Your task to perform on an android device: Go to CNN.com Image 0: 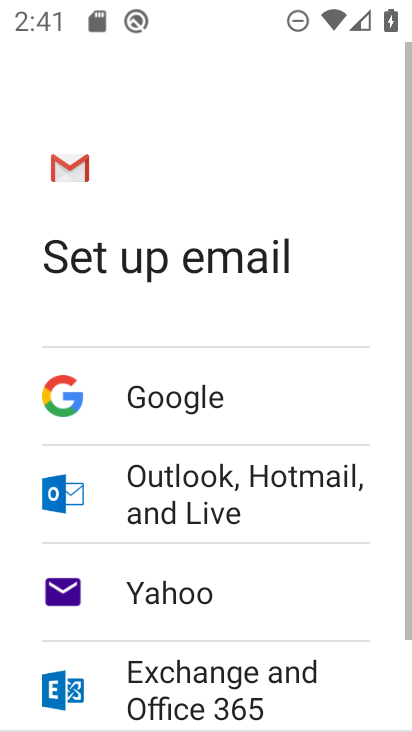
Step 0: press back button
Your task to perform on an android device: Go to CNN.com Image 1: 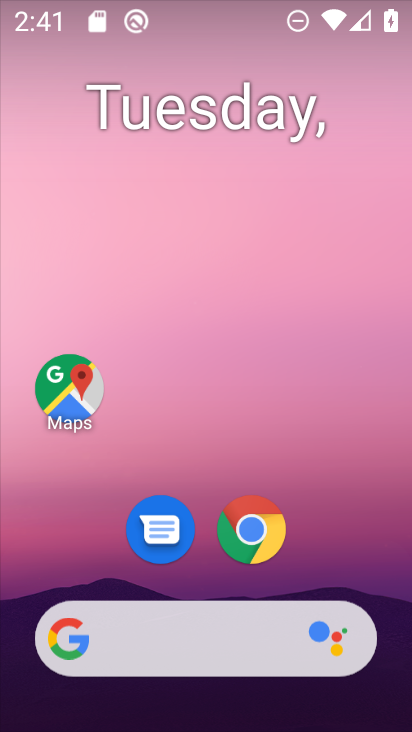
Step 1: click (276, 532)
Your task to perform on an android device: Go to CNN.com Image 2: 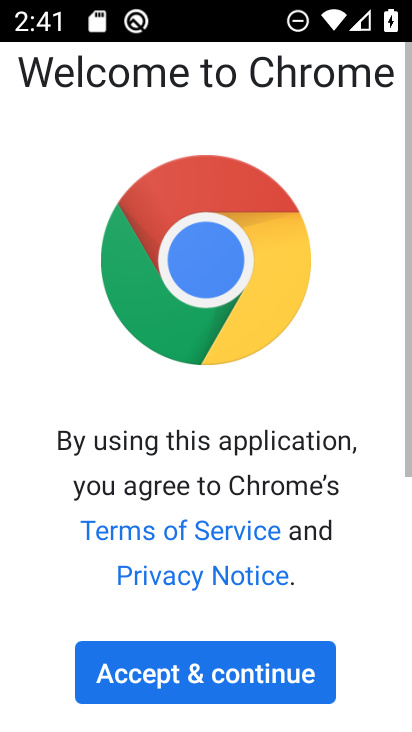
Step 2: click (162, 682)
Your task to perform on an android device: Go to CNN.com Image 3: 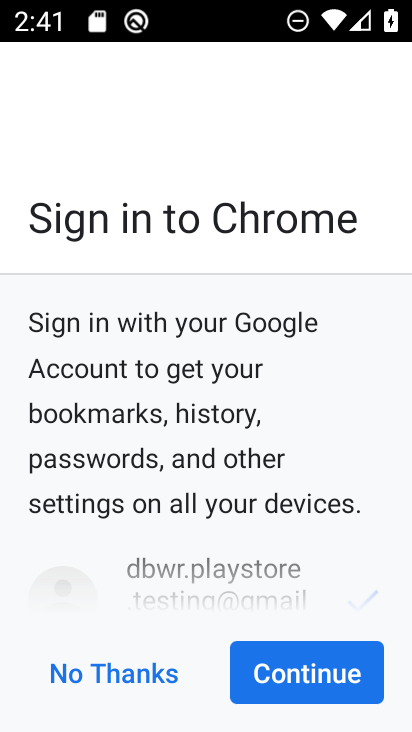
Step 3: click (337, 669)
Your task to perform on an android device: Go to CNN.com Image 4: 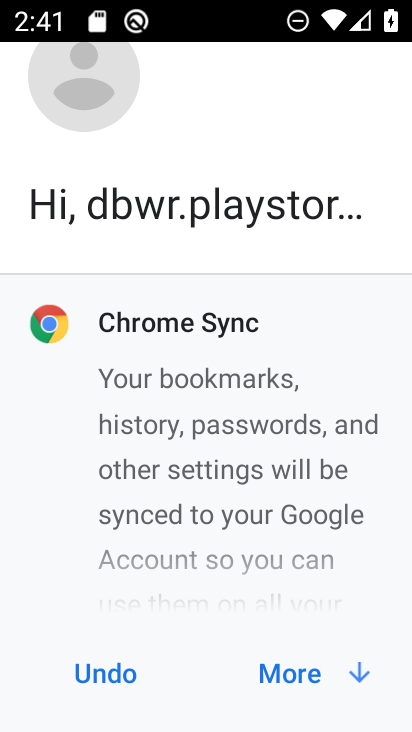
Step 4: click (301, 670)
Your task to perform on an android device: Go to CNN.com Image 5: 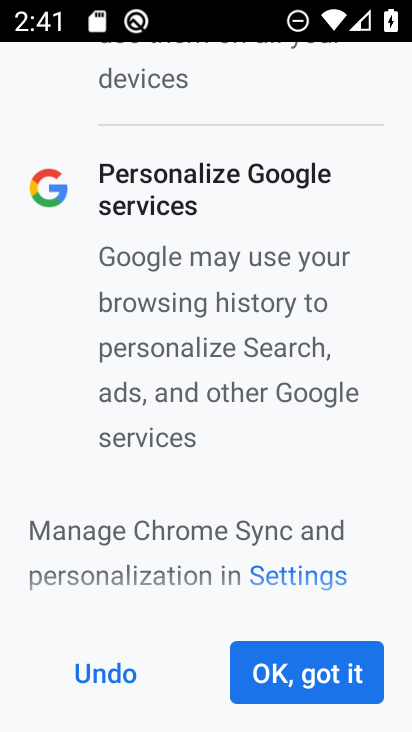
Step 5: click (297, 670)
Your task to perform on an android device: Go to CNN.com Image 6: 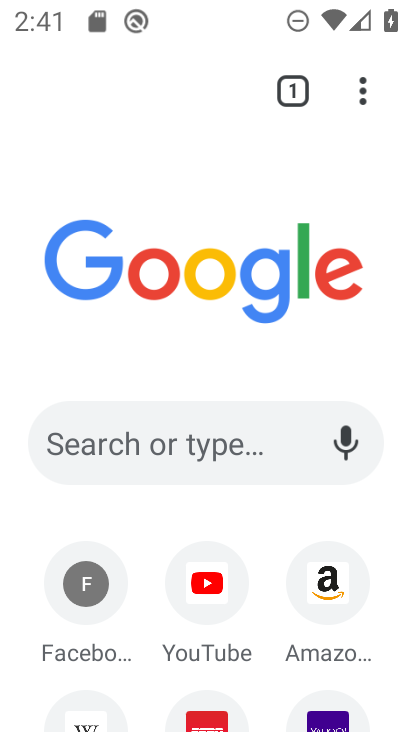
Step 6: drag from (190, 682) to (245, 323)
Your task to perform on an android device: Go to CNN.com Image 7: 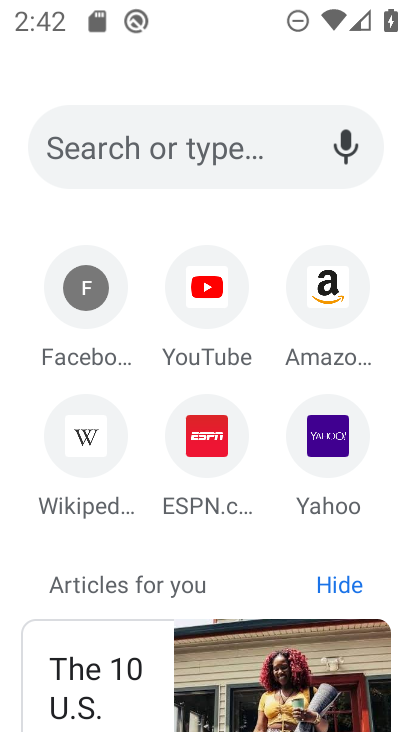
Step 7: click (184, 156)
Your task to perform on an android device: Go to CNN.com Image 8: 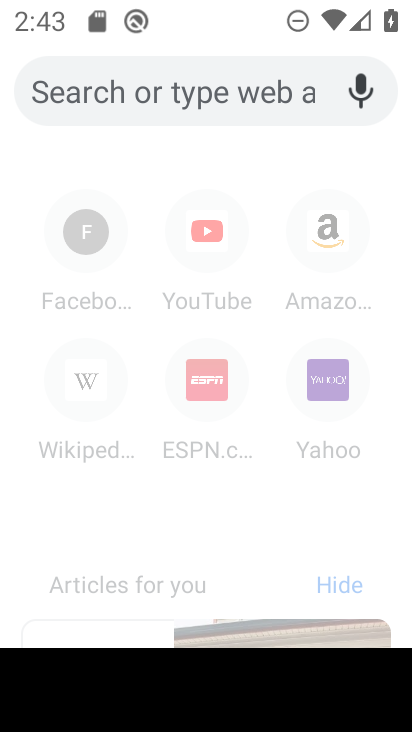
Step 8: type "cnn.com"
Your task to perform on an android device: Go to CNN.com Image 9: 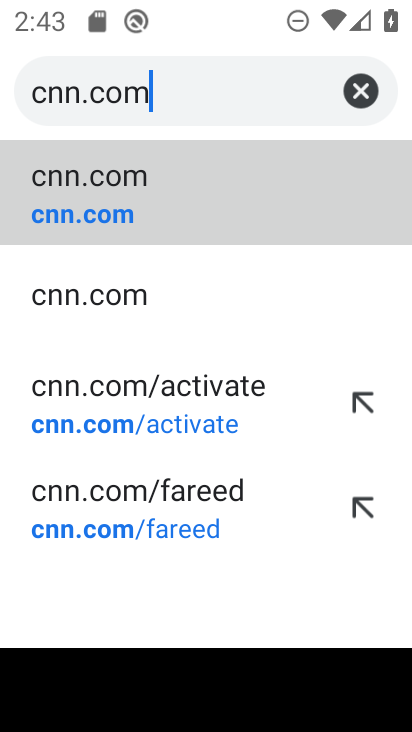
Step 9: click (180, 199)
Your task to perform on an android device: Go to CNN.com Image 10: 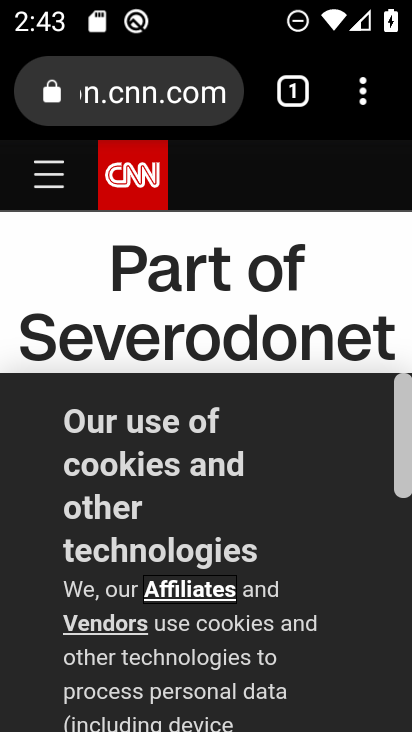
Step 10: task complete